Your task to perform on an android device: Open Google Chrome and open the bookmarks view Image 0: 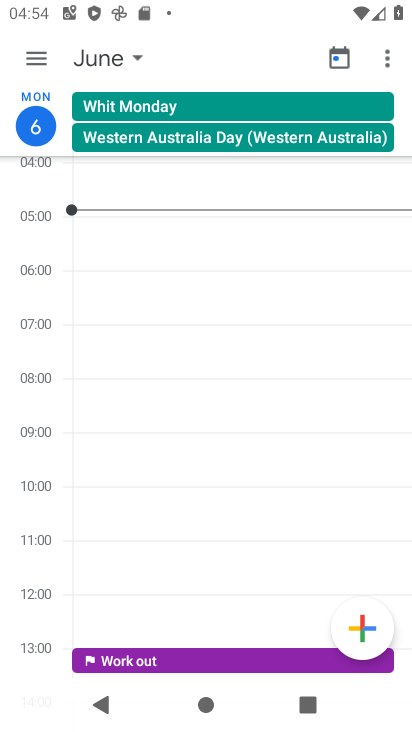
Step 0: task complete